Your task to perform on an android device: search for starred emails in the gmail app Image 0: 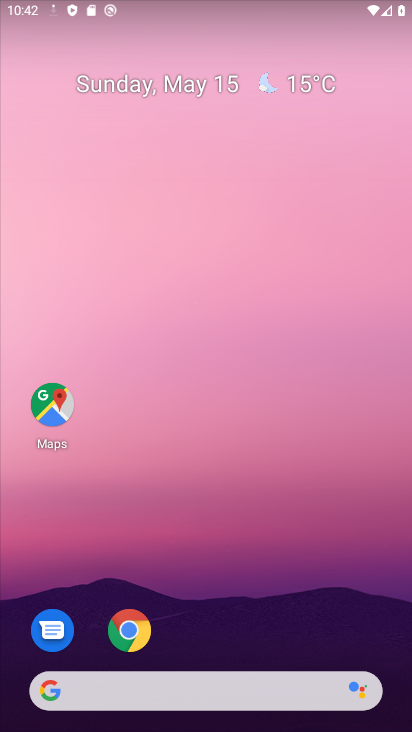
Step 0: drag from (378, 630) to (370, 130)
Your task to perform on an android device: search for starred emails in the gmail app Image 1: 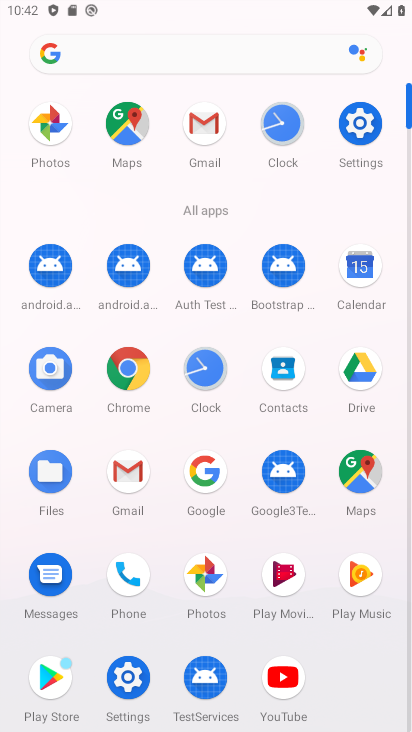
Step 1: click (132, 474)
Your task to perform on an android device: search for starred emails in the gmail app Image 2: 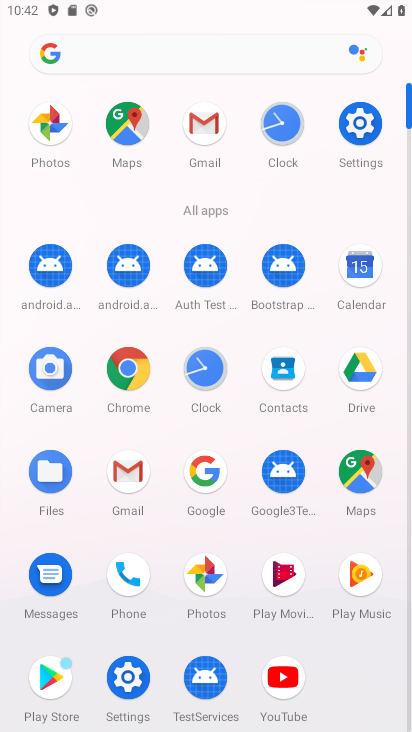
Step 2: click (128, 465)
Your task to perform on an android device: search for starred emails in the gmail app Image 3: 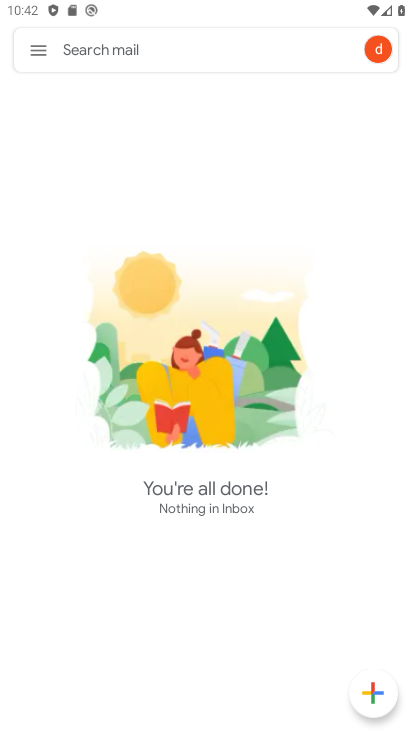
Step 3: click (40, 51)
Your task to perform on an android device: search for starred emails in the gmail app Image 4: 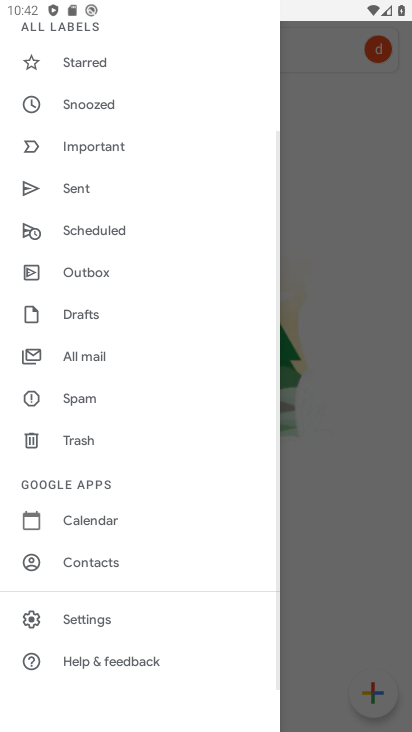
Step 4: drag from (210, 622) to (228, 369)
Your task to perform on an android device: search for starred emails in the gmail app Image 5: 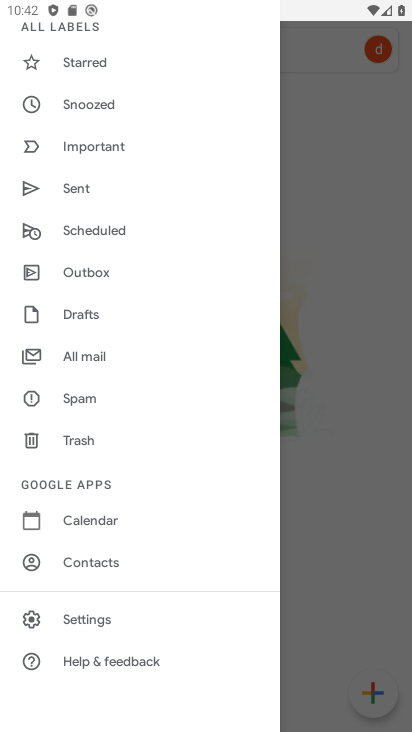
Step 5: drag from (215, 248) to (194, 429)
Your task to perform on an android device: search for starred emails in the gmail app Image 6: 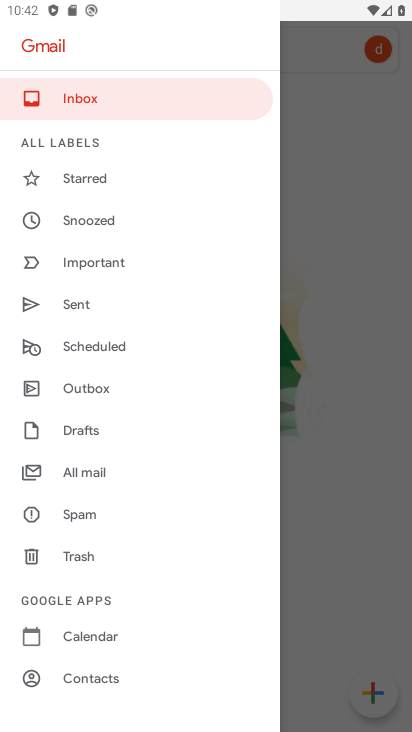
Step 6: click (90, 184)
Your task to perform on an android device: search for starred emails in the gmail app Image 7: 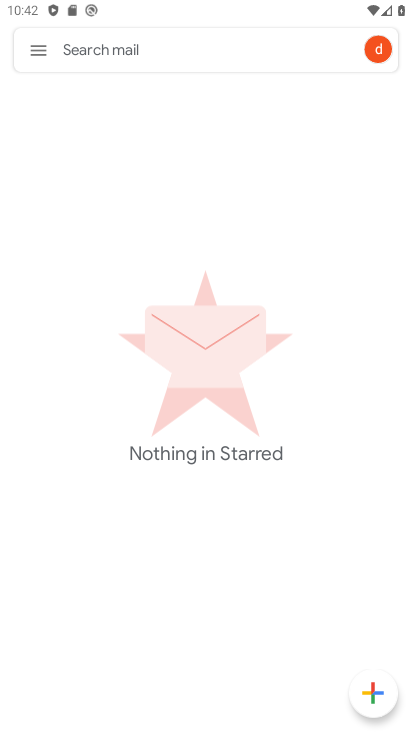
Step 7: task complete